Your task to perform on an android device: Open Google Maps and go to "Timeline" Image 0: 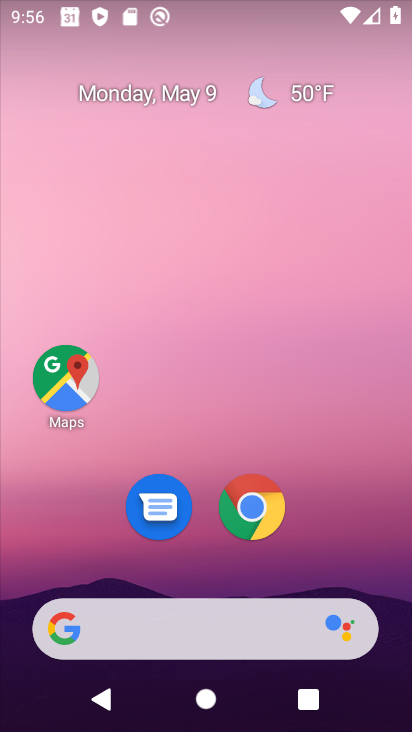
Step 0: drag from (349, 520) to (298, 62)
Your task to perform on an android device: Open Google Maps and go to "Timeline" Image 1: 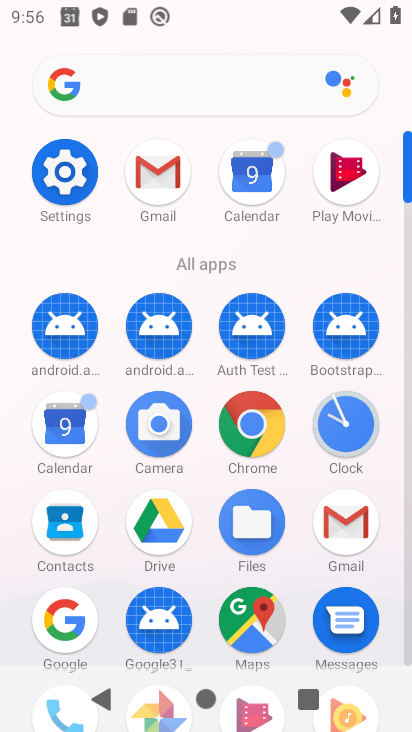
Step 1: click (259, 605)
Your task to perform on an android device: Open Google Maps and go to "Timeline" Image 2: 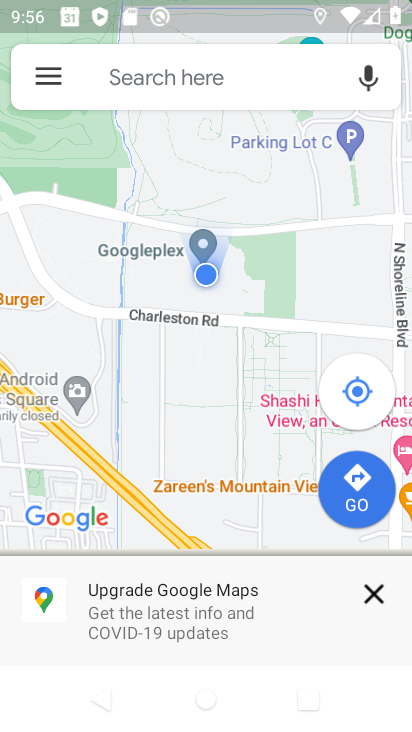
Step 2: click (357, 526)
Your task to perform on an android device: Open Google Maps and go to "Timeline" Image 3: 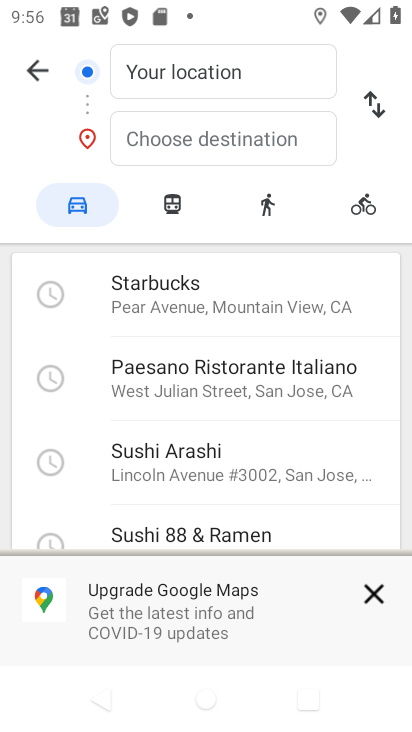
Step 3: click (23, 68)
Your task to perform on an android device: Open Google Maps and go to "Timeline" Image 4: 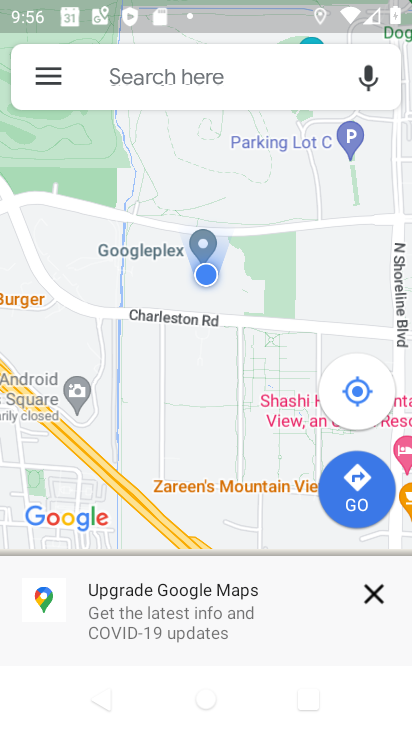
Step 4: click (48, 86)
Your task to perform on an android device: Open Google Maps and go to "Timeline" Image 5: 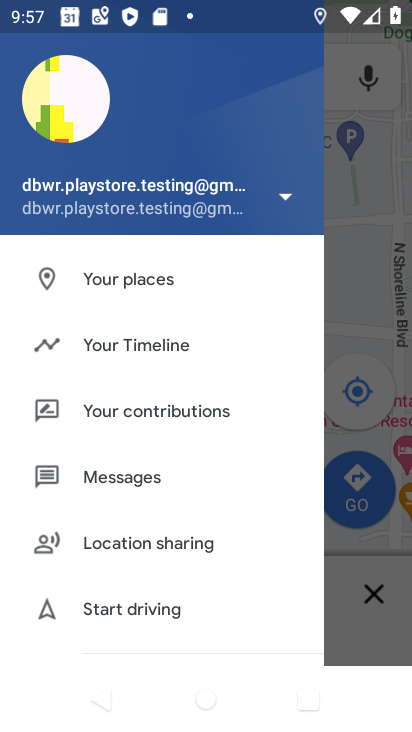
Step 5: click (130, 345)
Your task to perform on an android device: Open Google Maps and go to "Timeline" Image 6: 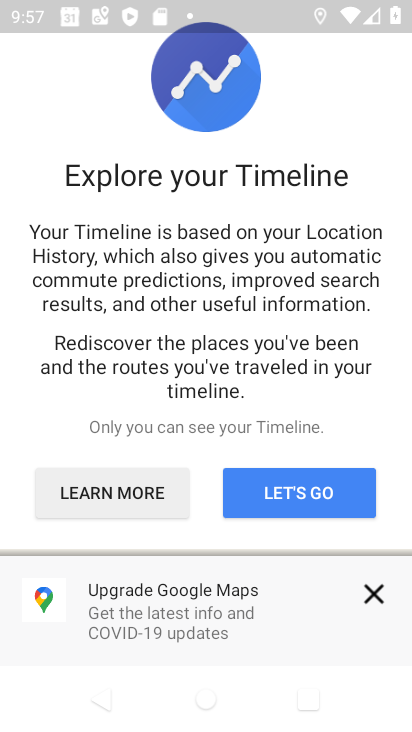
Step 6: click (259, 483)
Your task to perform on an android device: Open Google Maps and go to "Timeline" Image 7: 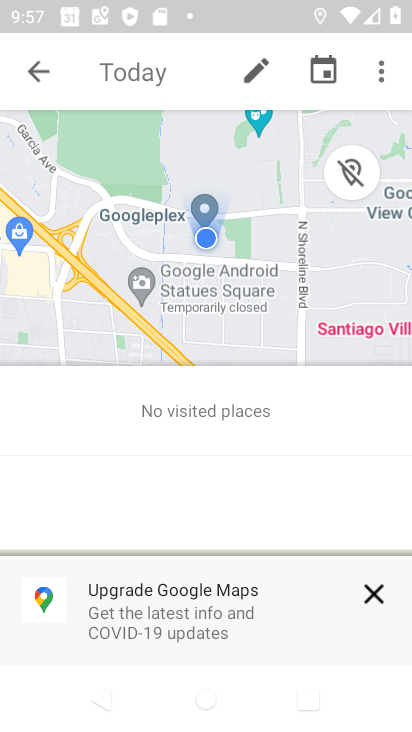
Step 7: task complete